Your task to perform on an android device: toggle show notifications on the lock screen Image 0: 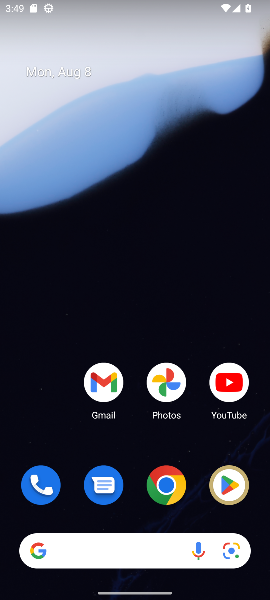
Step 0: drag from (160, 484) to (157, 198)
Your task to perform on an android device: toggle show notifications on the lock screen Image 1: 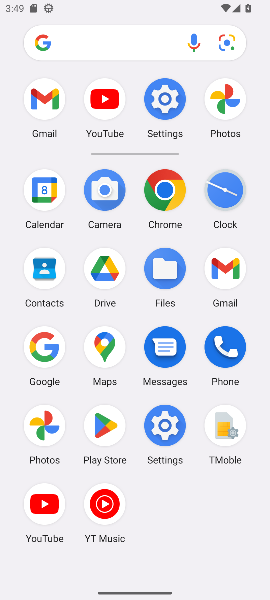
Step 1: click (162, 432)
Your task to perform on an android device: toggle show notifications on the lock screen Image 2: 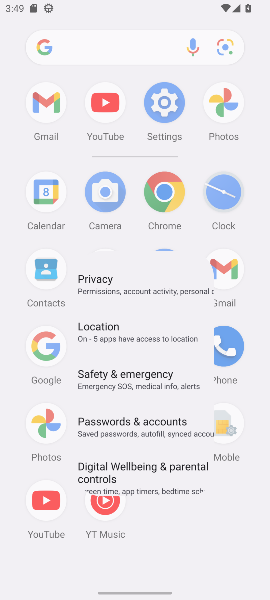
Step 2: click (162, 432)
Your task to perform on an android device: toggle show notifications on the lock screen Image 3: 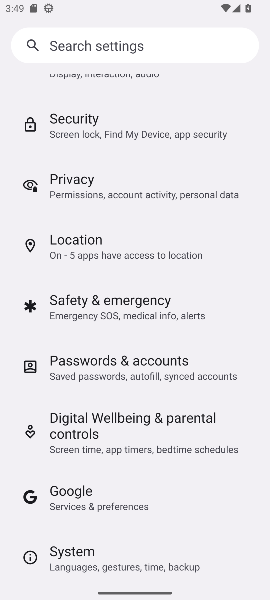
Step 3: click (162, 432)
Your task to perform on an android device: toggle show notifications on the lock screen Image 4: 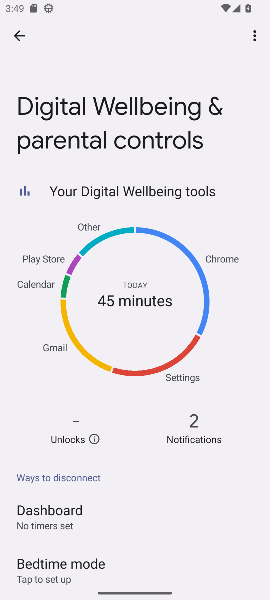
Step 4: click (13, 33)
Your task to perform on an android device: toggle show notifications on the lock screen Image 5: 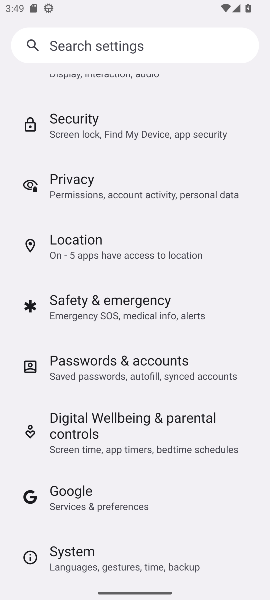
Step 5: drag from (130, 498) to (130, 285)
Your task to perform on an android device: toggle show notifications on the lock screen Image 6: 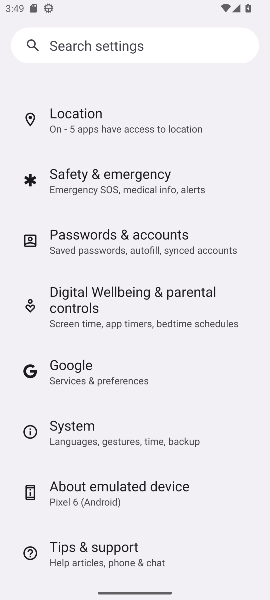
Step 6: drag from (161, 366) to (148, 202)
Your task to perform on an android device: toggle show notifications on the lock screen Image 7: 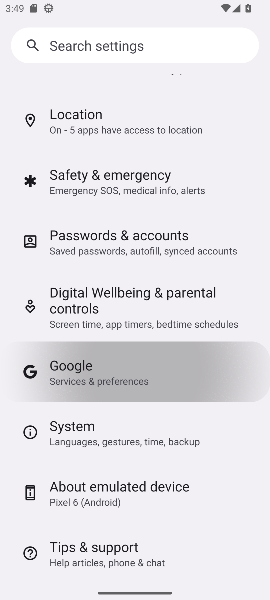
Step 7: drag from (157, 309) to (149, 179)
Your task to perform on an android device: toggle show notifications on the lock screen Image 8: 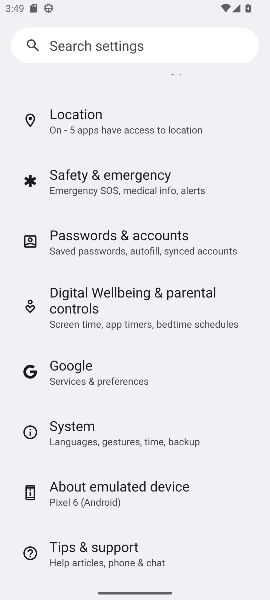
Step 8: drag from (102, 479) to (102, 208)
Your task to perform on an android device: toggle show notifications on the lock screen Image 9: 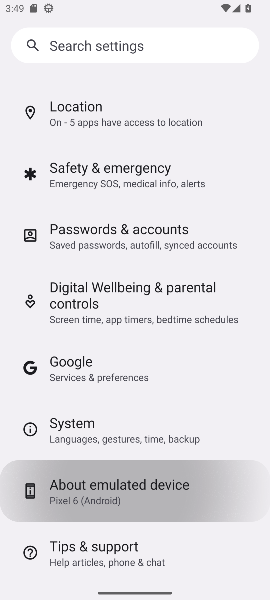
Step 9: drag from (116, 190) to (119, 430)
Your task to perform on an android device: toggle show notifications on the lock screen Image 10: 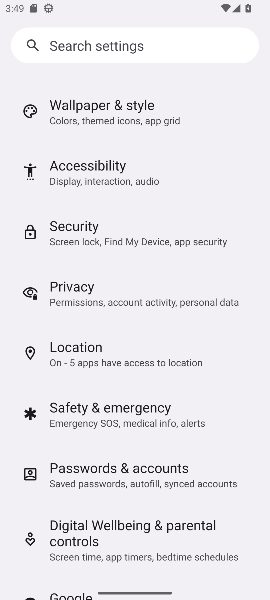
Step 10: drag from (119, 234) to (142, 486)
Your task to perform on an android device: toggle show notifications on the lock screen Image 11: 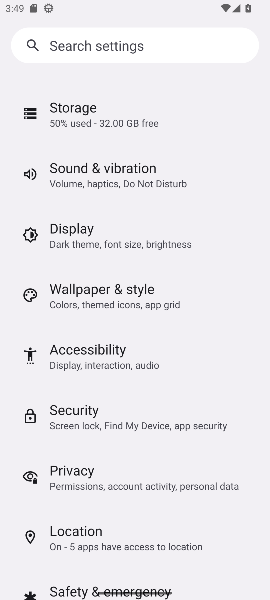
Step 11: drag from (105, 236) to (137, 449)
Your task to perform on an android device: toggle show notifications on the lock screen Image 12: 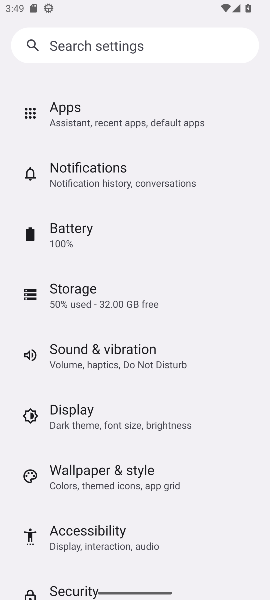
Step 12: click (152, 414)
Your task to perform on an android device: toggle show notifications on the lock screen Image 13: 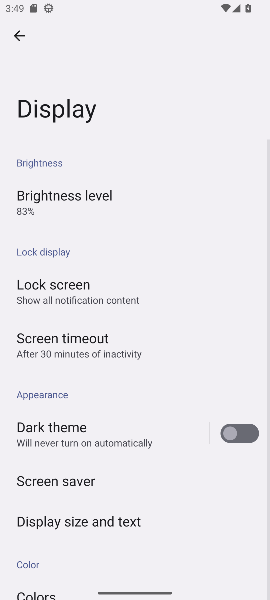
Step 13: click (15, 29)
Your task to perform on an android device: toggle show notifications on the lock screen Image 14: 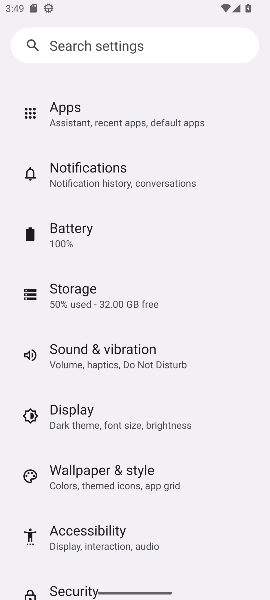
Step 14: click (103, 173)
Your task to perform on an android device: toggle show notifications on the lock screen Image 15: 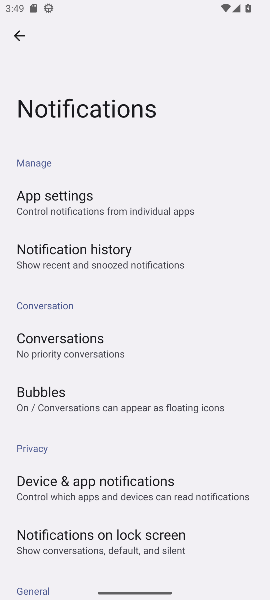
Step 15: click (86, 544)
Your task to perform on an android device: toggle show notifications on the lock screen Image 16: 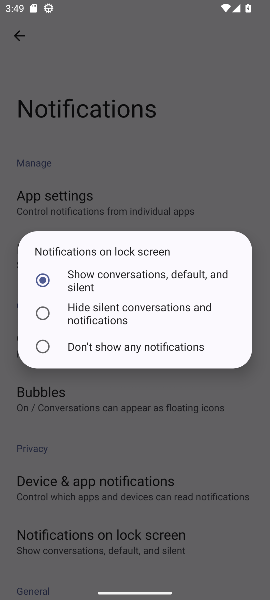
Step 16: click (40, 311)
Your task to perform on an android device: toggle show notifications on the lock screen Image 17: 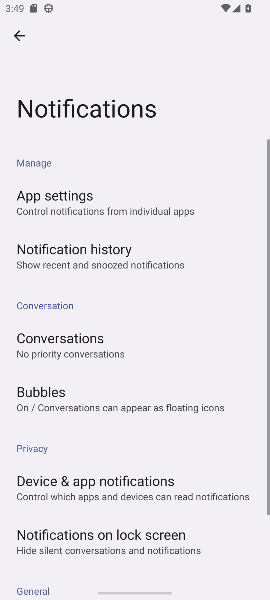
Step 17: task complete